Your task to perform on an android device: Clear all items from cart on target.com. Add jbl flip 4 to the cart on target.com, then select checkout. Image 0: 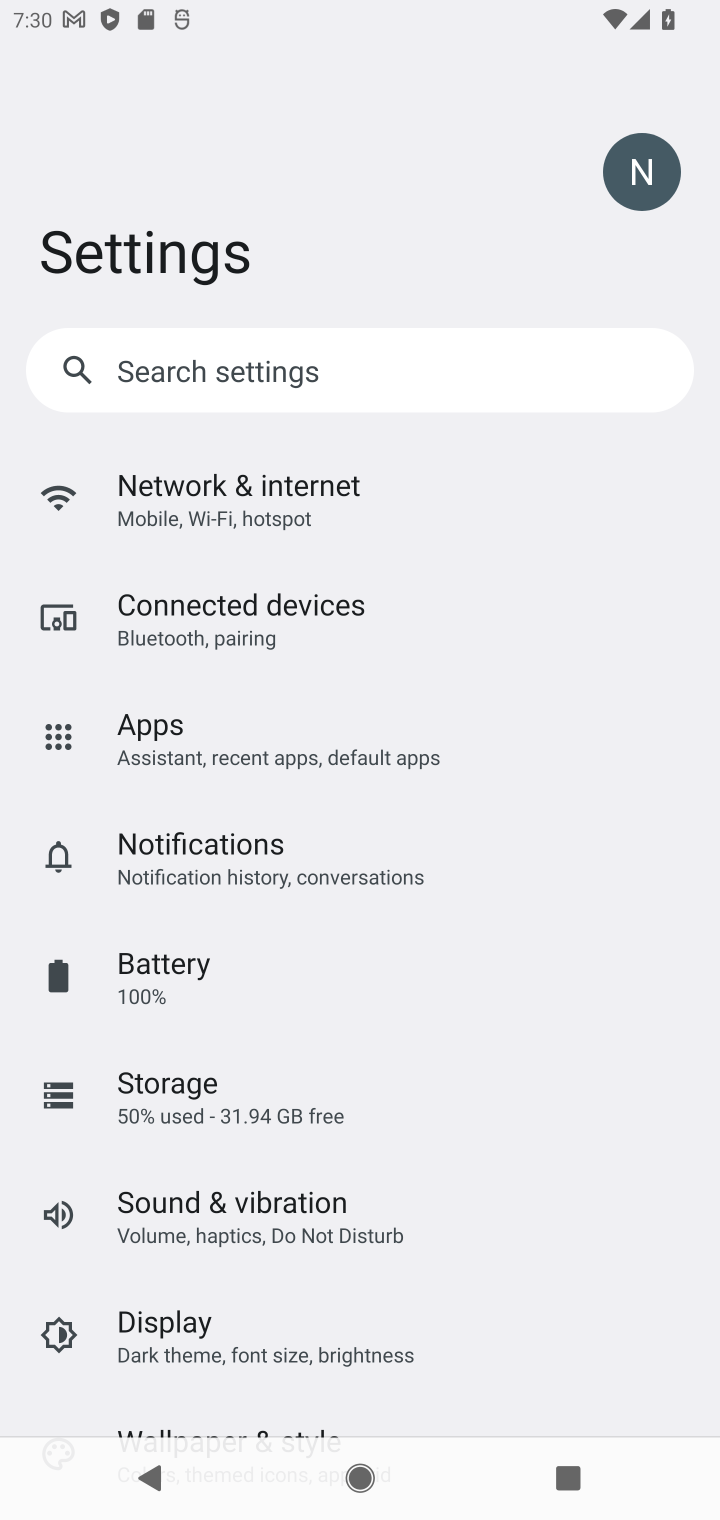
Step 0: press home button
Your task to perform on an android device: Clear all items from cart on target.com. Add jbl flip 4 to the cart on target.com, then select checkout. Image 1: 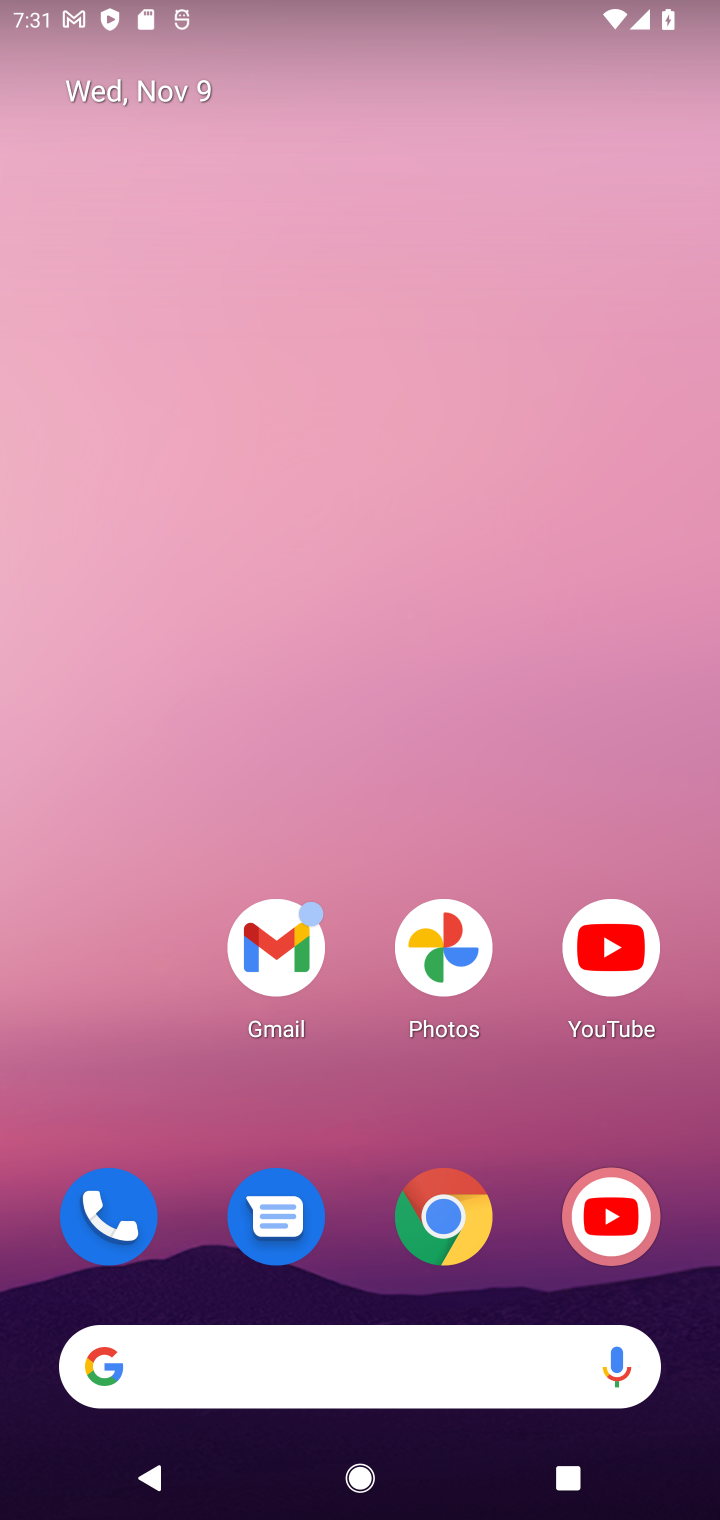
Step 1: drag from (405, 795) to (389, 220)
Your task to perform on an android device: Clear all items from cart on target.com. Add jbl flip 4 to the cart on target.com, then select checkout. Image 2: 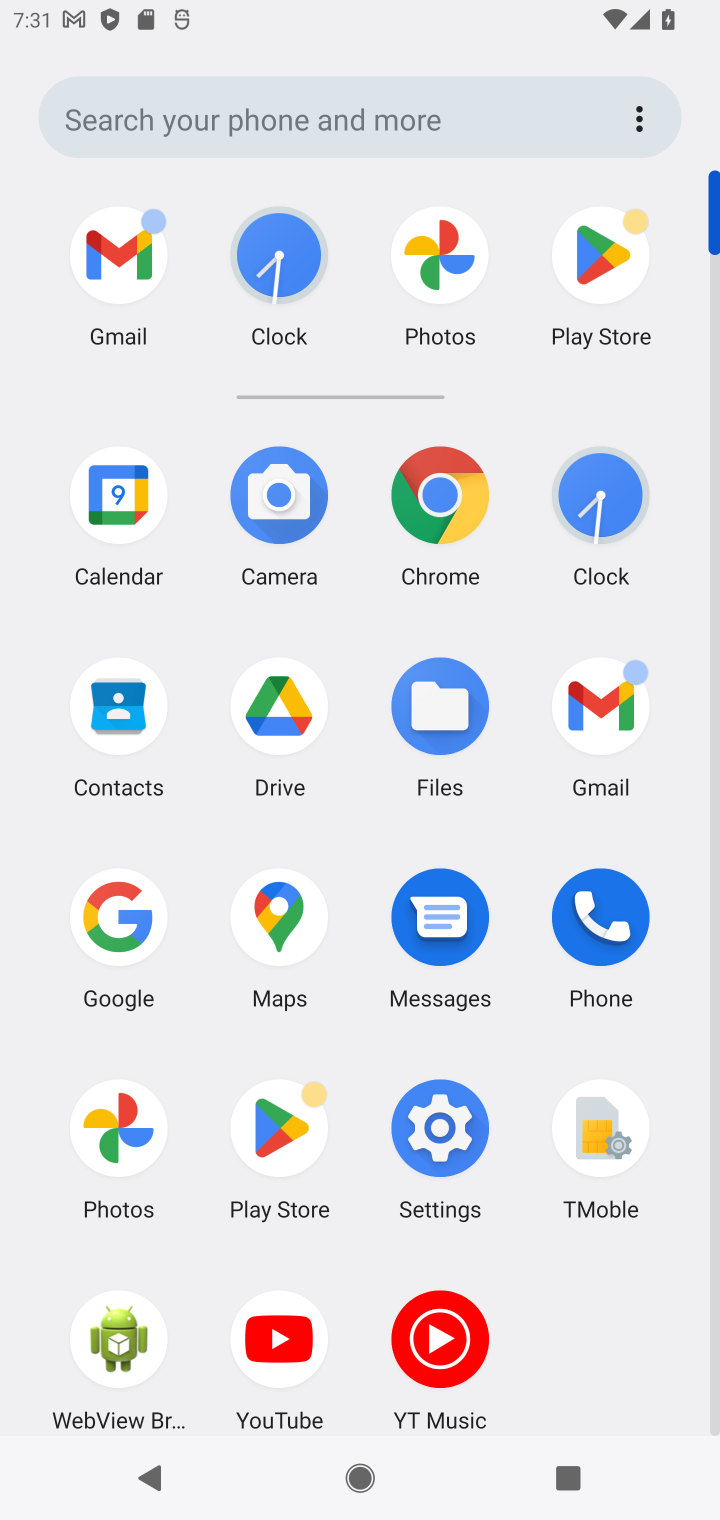
Step 2: click (438, 504)
Your task to perform on an android device: Clear all items from cart on target.com. Add jbl flip 4 to the cart on target.com, then select checkout. Image 3: 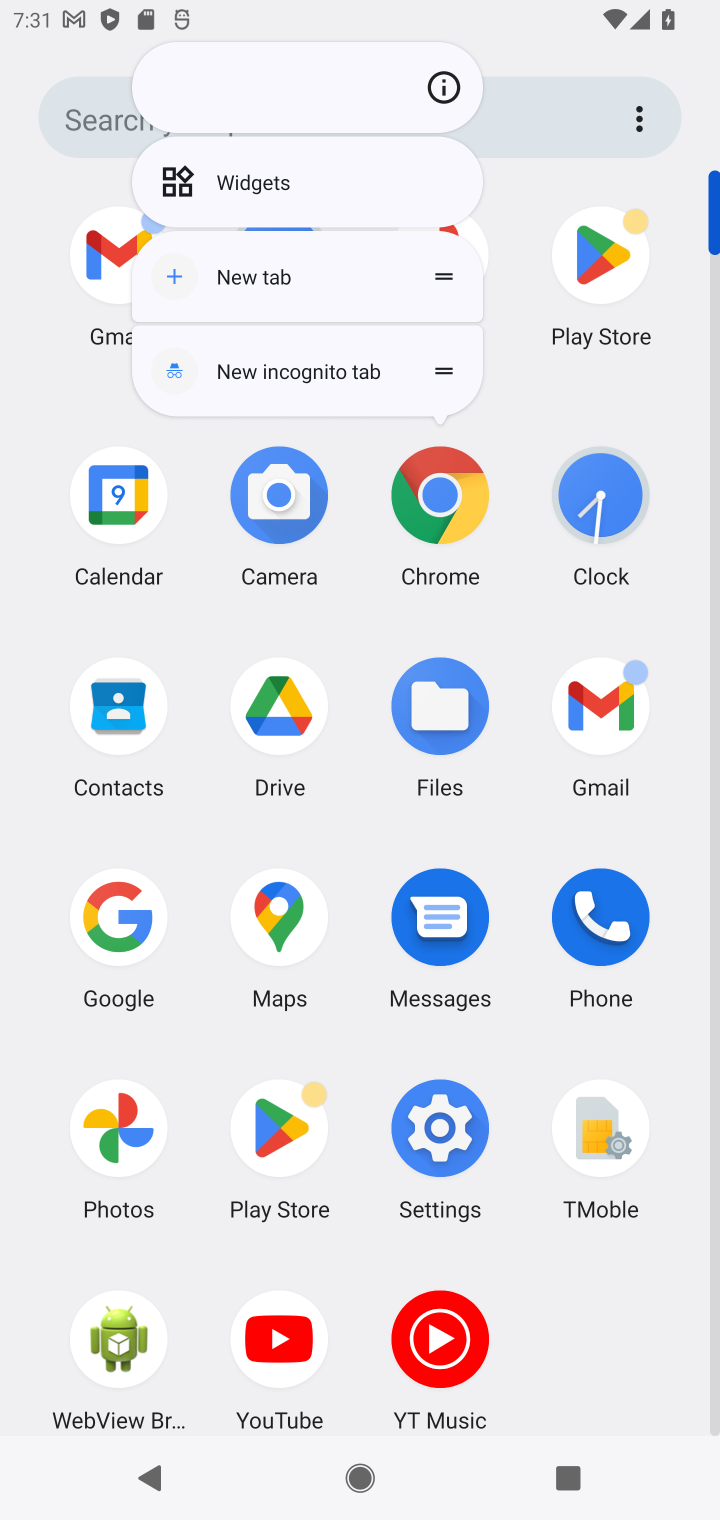
Step 3: click (429, 491)
Your task to perform on an android device: Clear all items from cart on target.com. Add jbl flip 4 to the cart on target.com, then select checkout. Image 4: 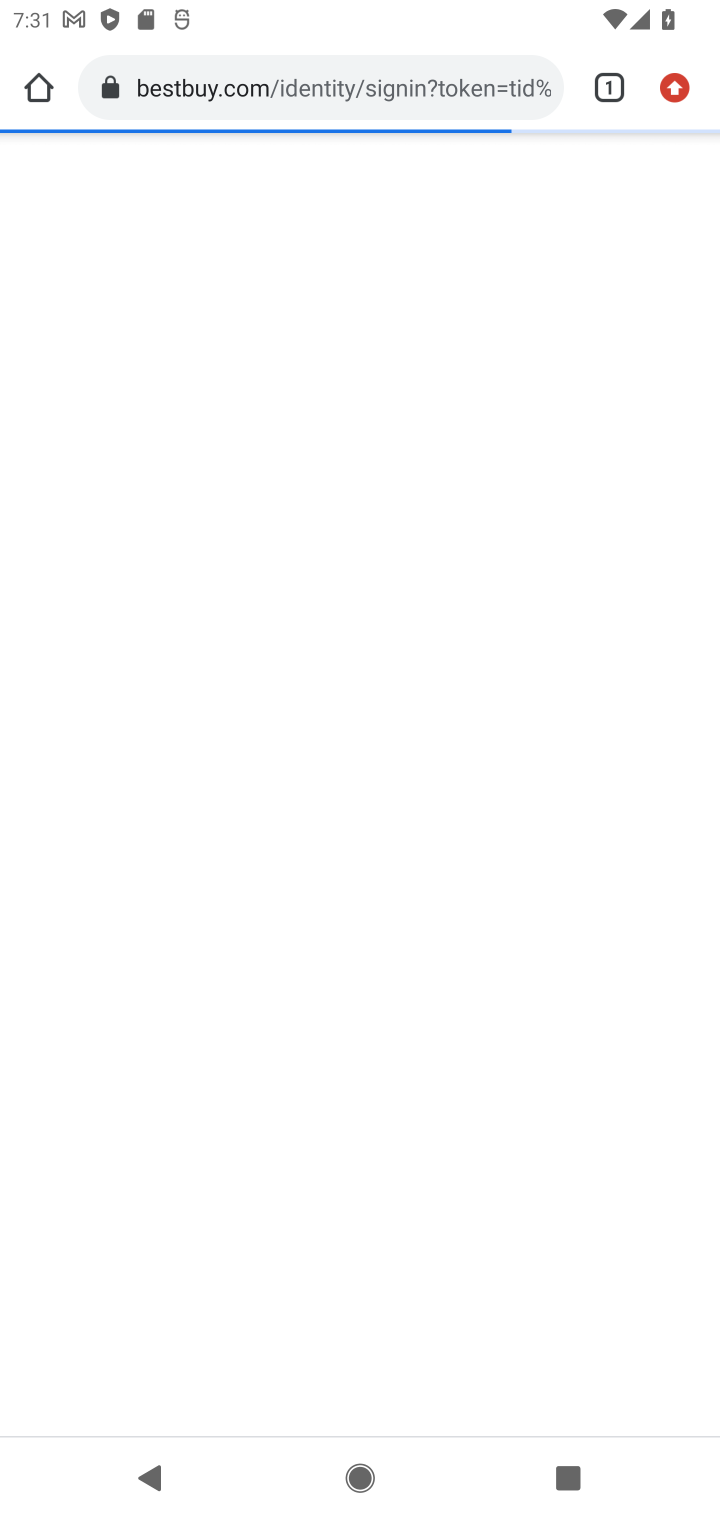
Step 4: click (384, 76)
Your task to perform on an android device: Clear all items from cart on target.com. Add jbl flip 4 to the cart on target.com, then select checkout. Image 5: 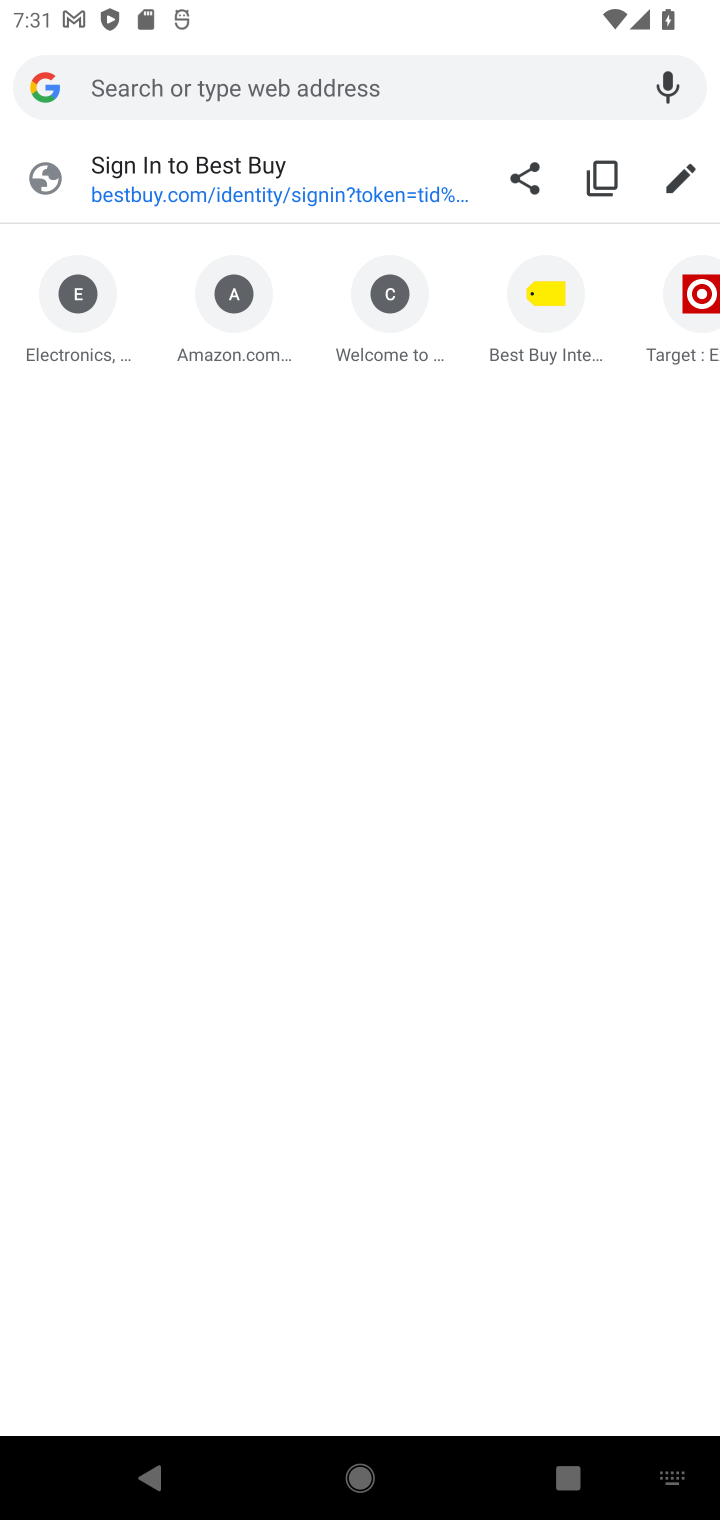
Step 5: type "target.com"
Your task to perform on an android device: Clear all items from cart on target.com. Add jbl flip 4 to the cart on target.com, then select checkout. Image 6: 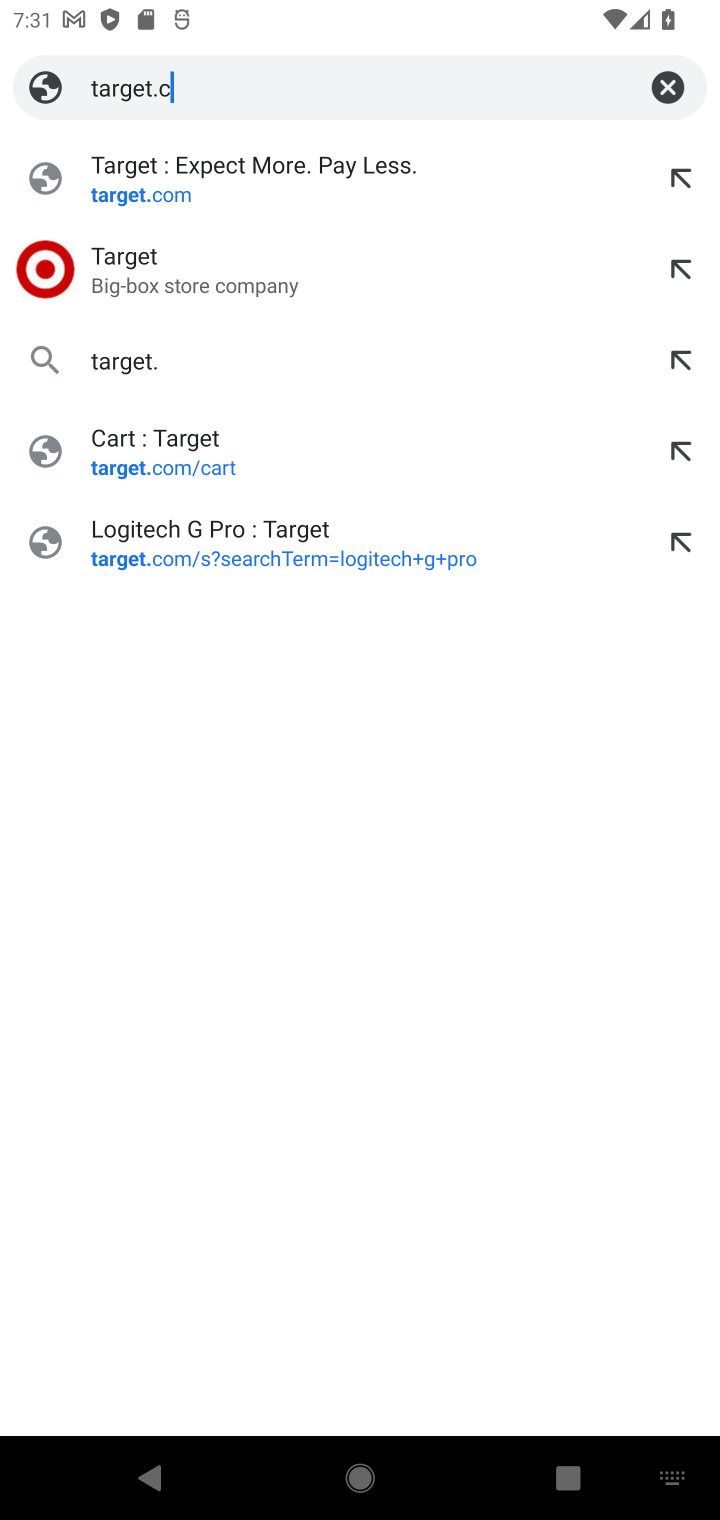
Step 6: press enter
Your task to perform on an android device: Clear all items from cart on target.com. Add jbl flip 4 to the cart on target.com, then select checkout. Image 7: 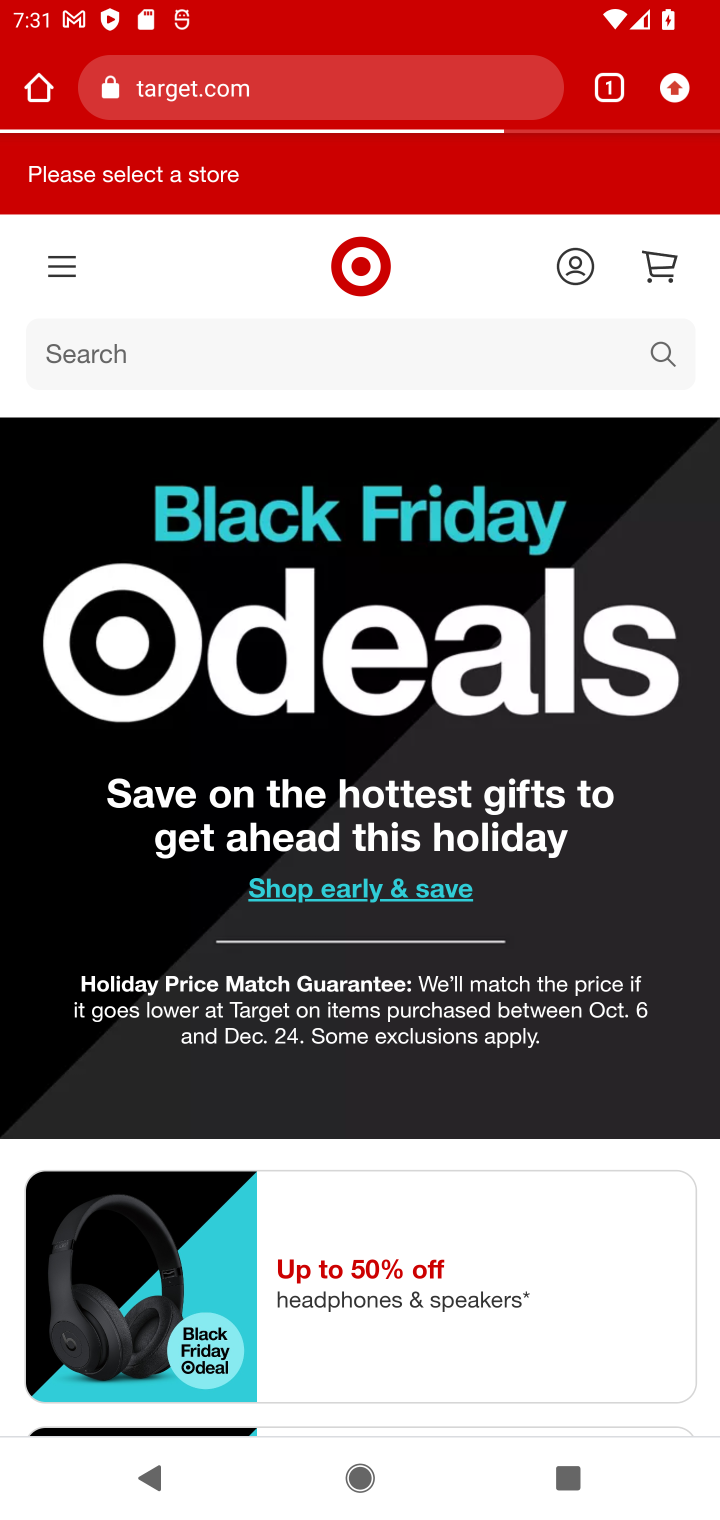
Step 7: click (655, 276)
Your task to perform on an android device: Clear all items from cart on target.com. Add jbl flip 4 to the cart on target.com, then select checkout. Image 8: 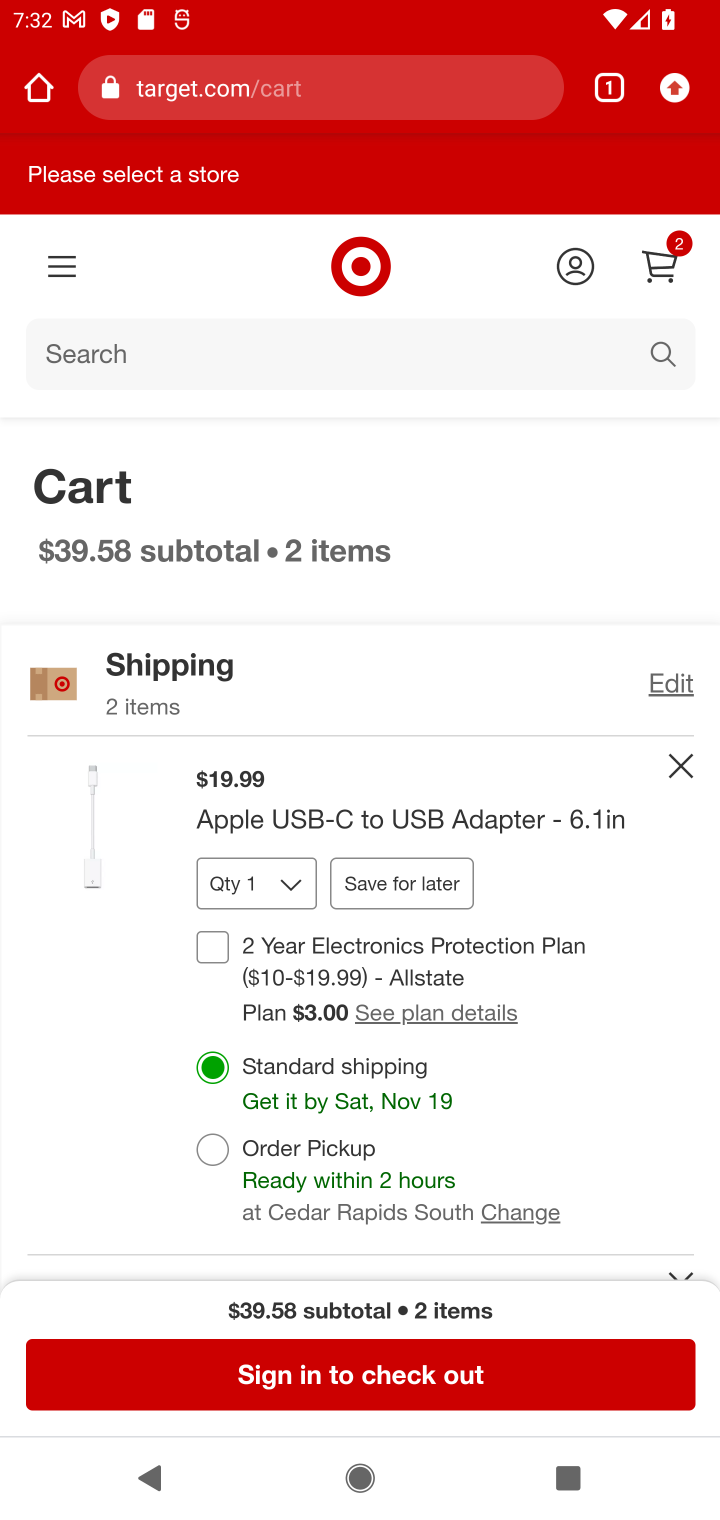
Step 8: click (676, 770)
Your task to perform on an android device: Clear all items from cart on target.com. Add jbl flip 4 to the cart on target.com, then select checkout. Image 9: 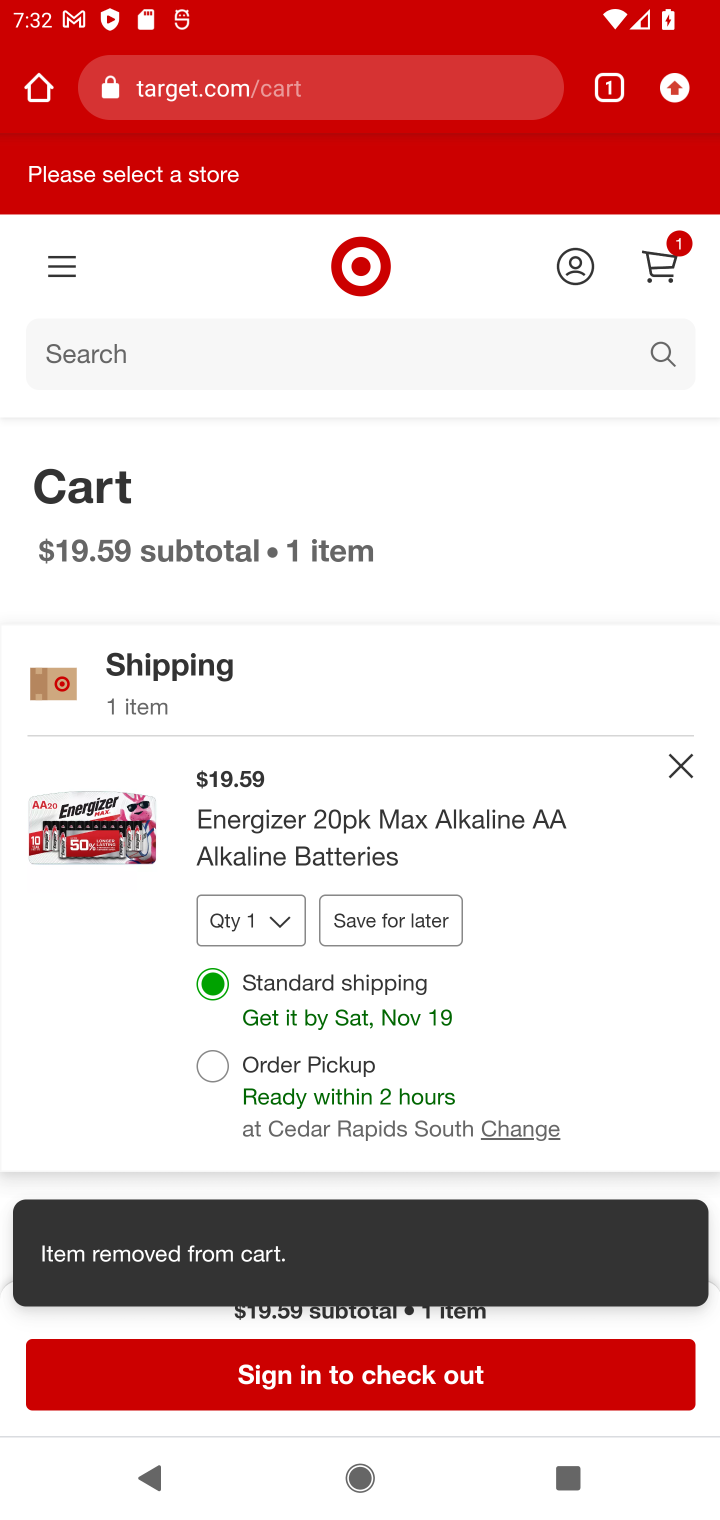
Step 9: click (676, 770)
Your task to perform on an android device: Clear all items from cart on target.com. Add jbl flip 4 to the cart on target.com, then select checkout. Image 10: 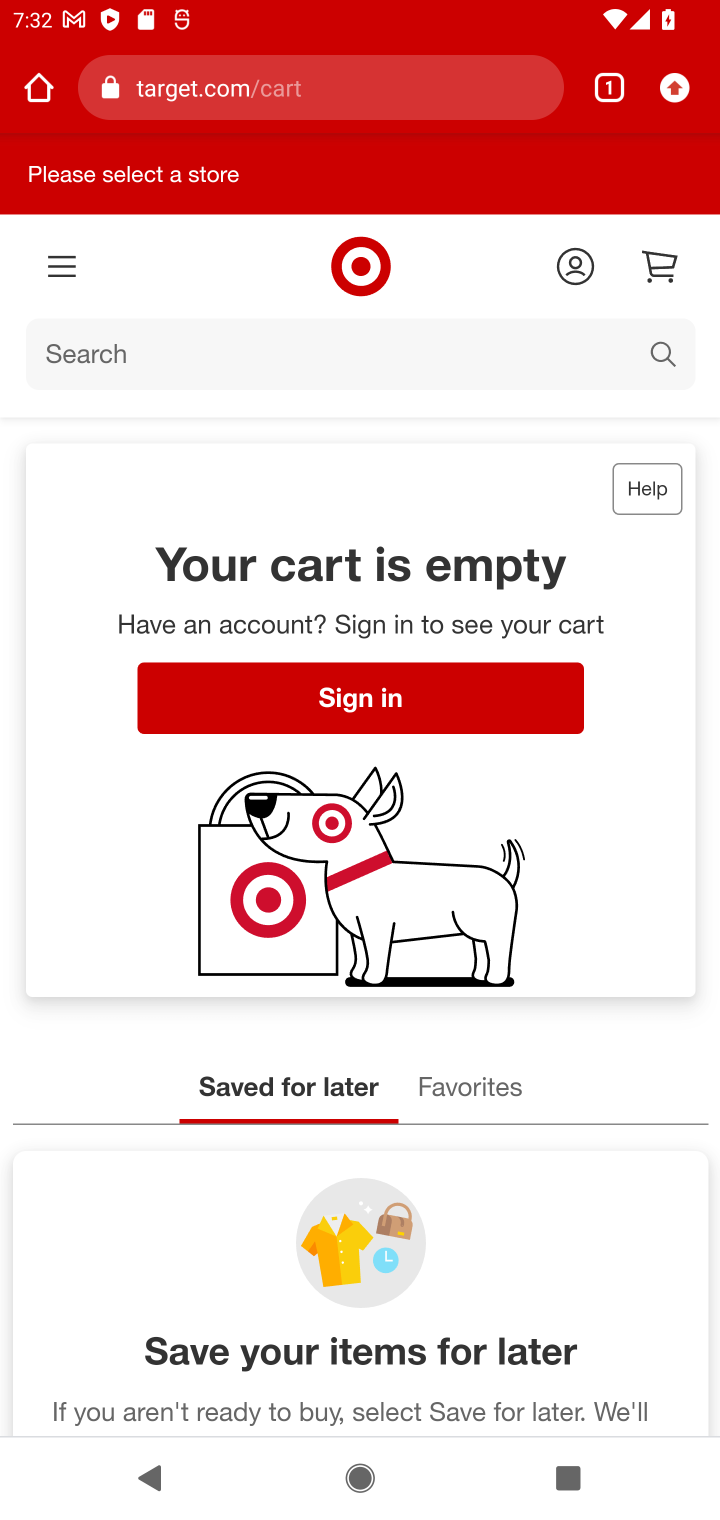
Step 10: click (390, 358)
Your task to perform on an android device: Clear all items from cart on target.com. Add jbl flip 4 to the cart on target.com, then select checkout. Image 11: 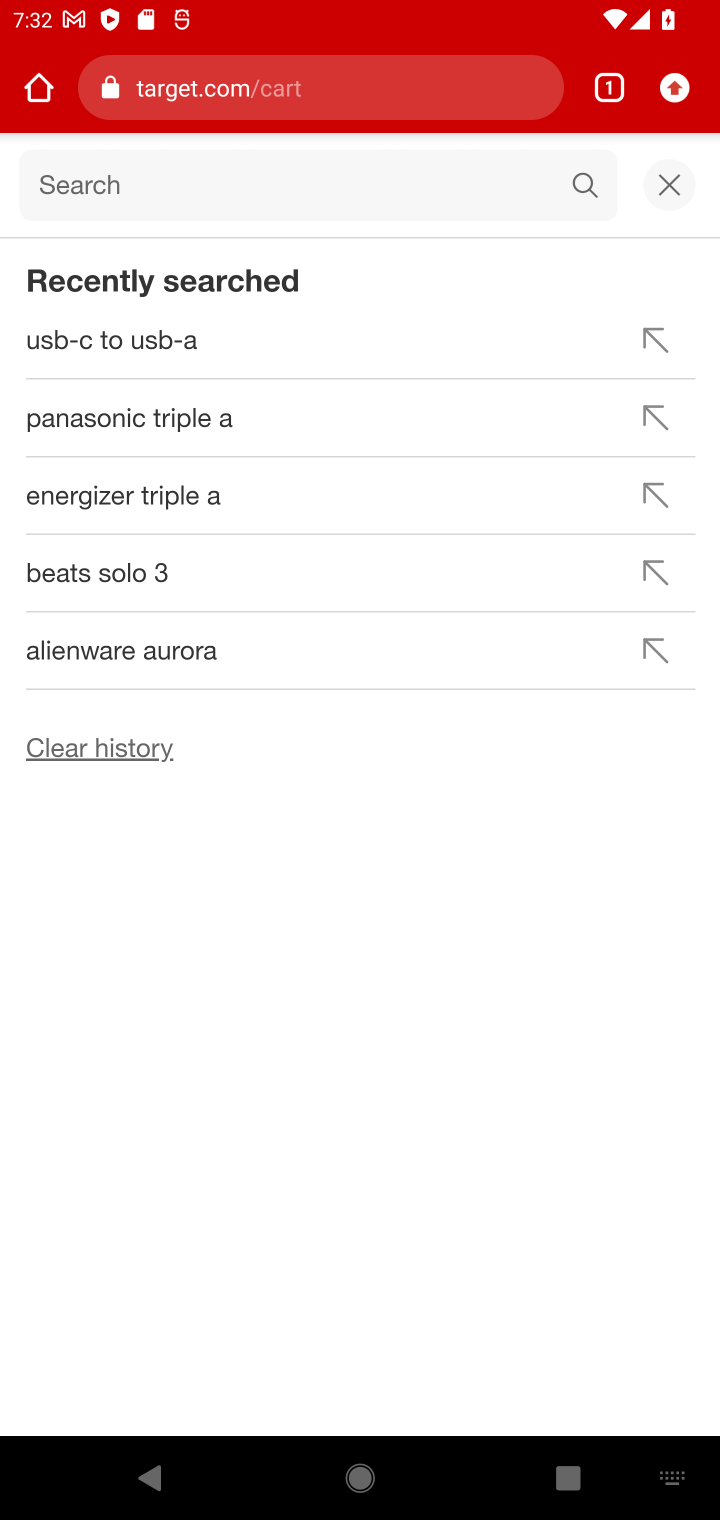
Step 11: type "jbl flip 4"
Your task to perform on an android device: Clear all items from cart on target.com. Add jbl flip 4 to the cart on target.com, then select checkout. Image 12: 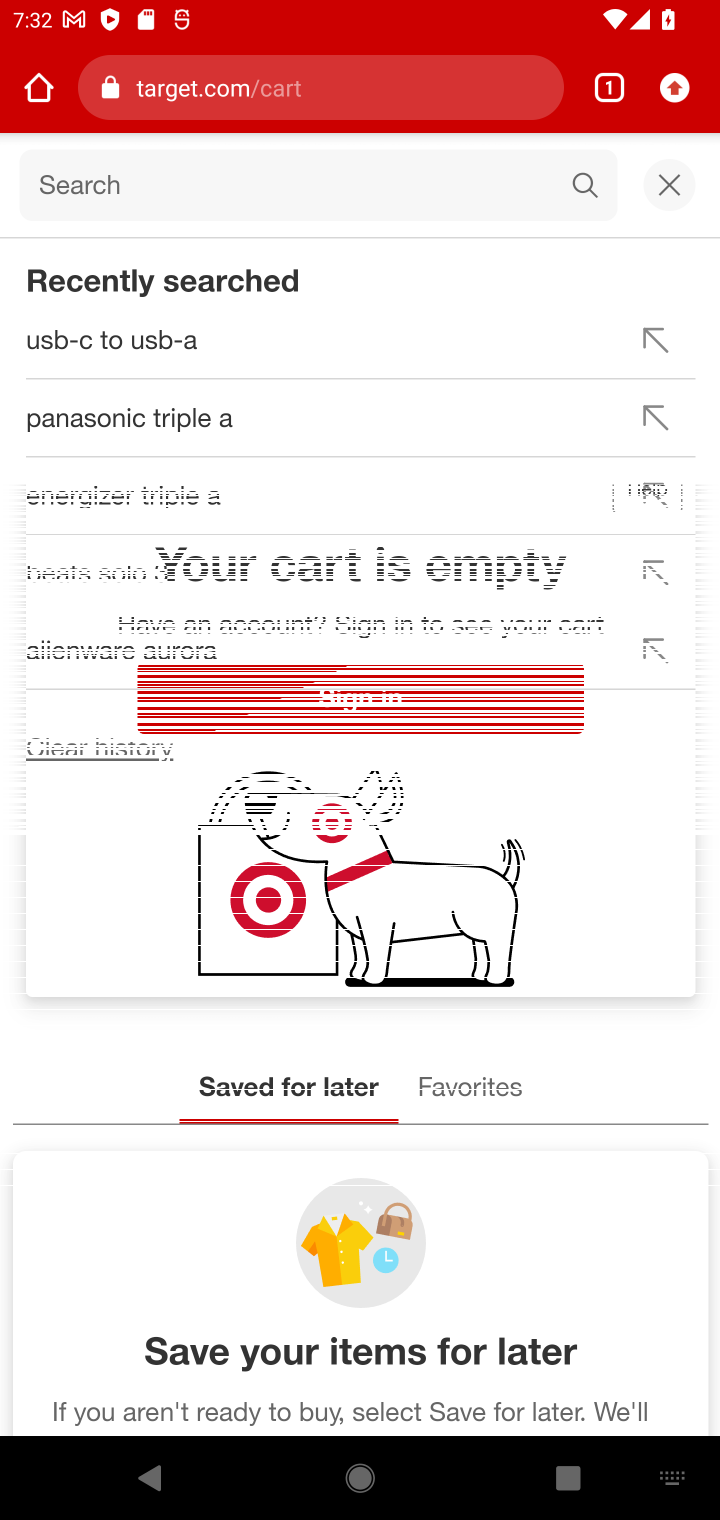
Step 12: press enter
Your task to perform on an android device: Clear all items from cart on target.com. Add jbl flip 4 to the cart on target.com, then select checkout. Image 13: 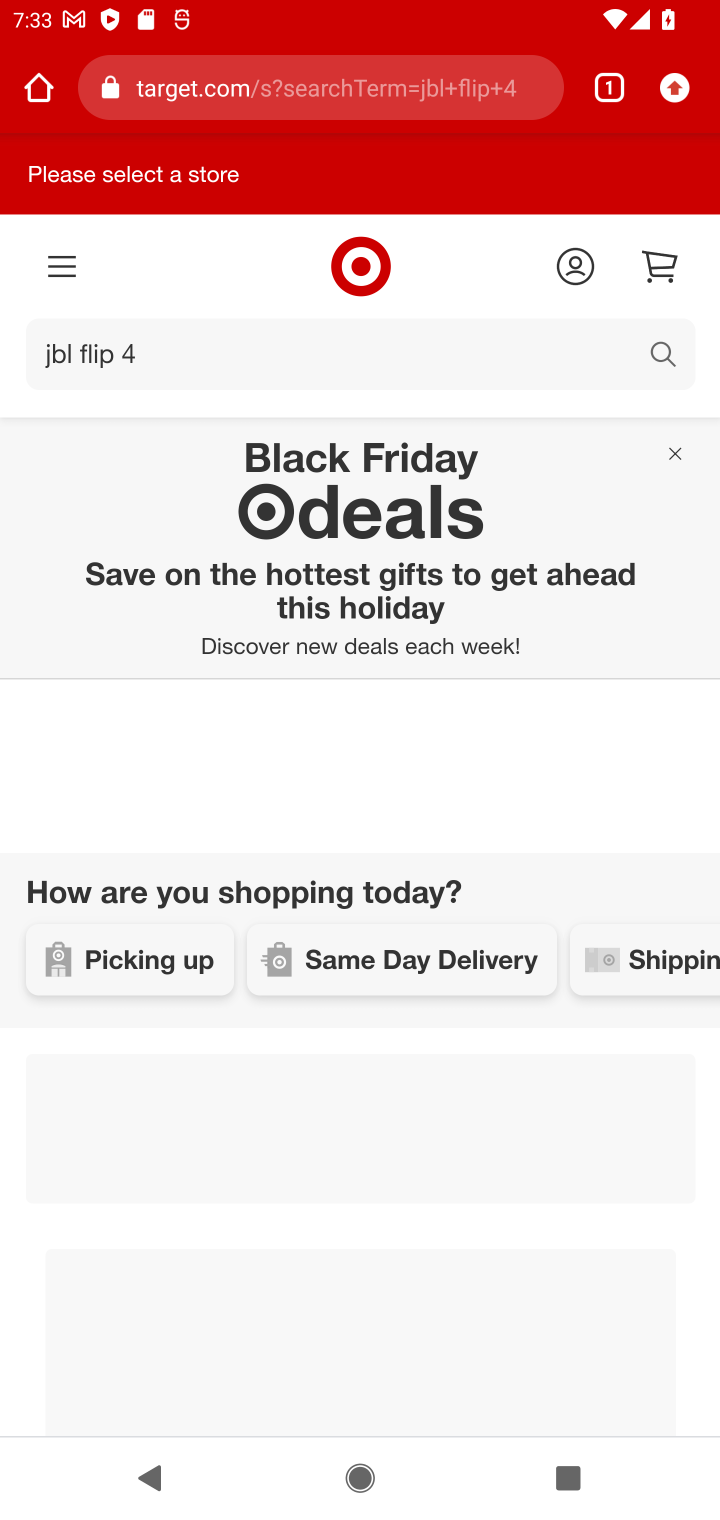
Step 13: task complete